Your task to perform on an android device: Show me recent news Image 0: 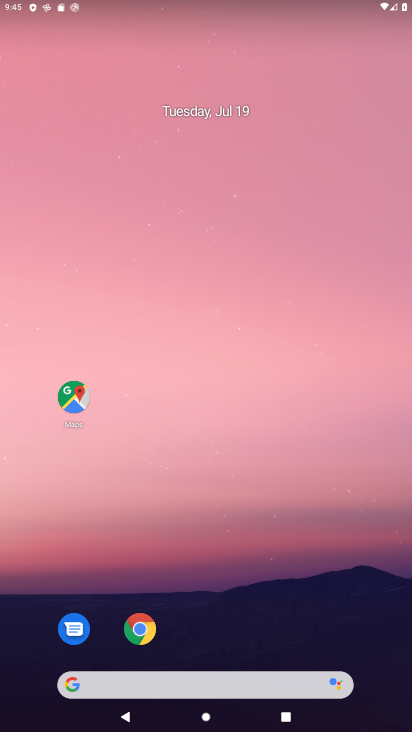
Step 0: press home button
Your task to perform on an android device: Show me recent news Image 1: 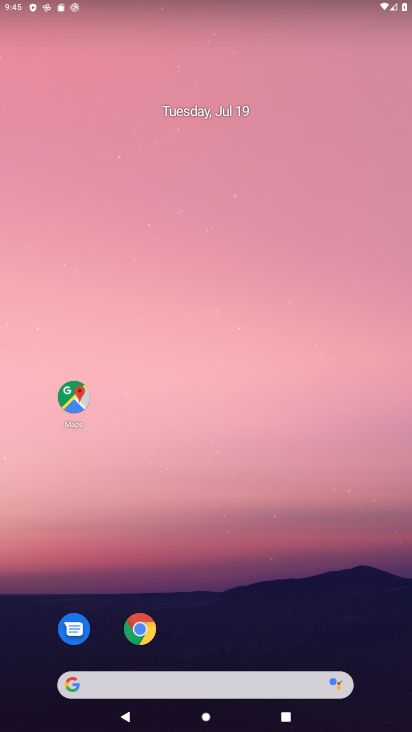
Step 1: click (65, 688)
Your task to perform on an android device: Show me recent news Image 2: 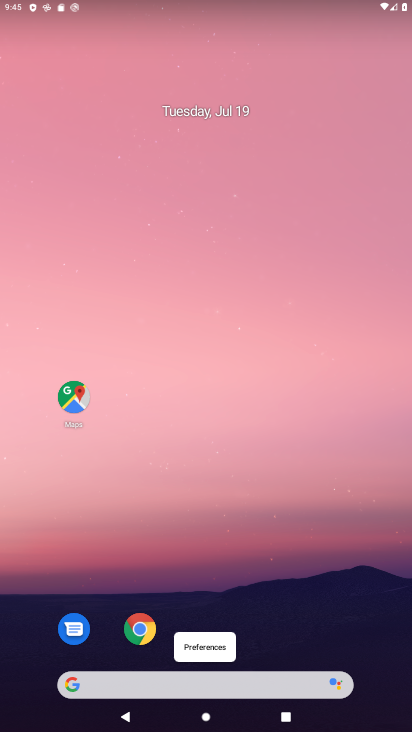
Step 2: click (71, 688)
Your task to perform on an android device: Show me recent news Image 3: 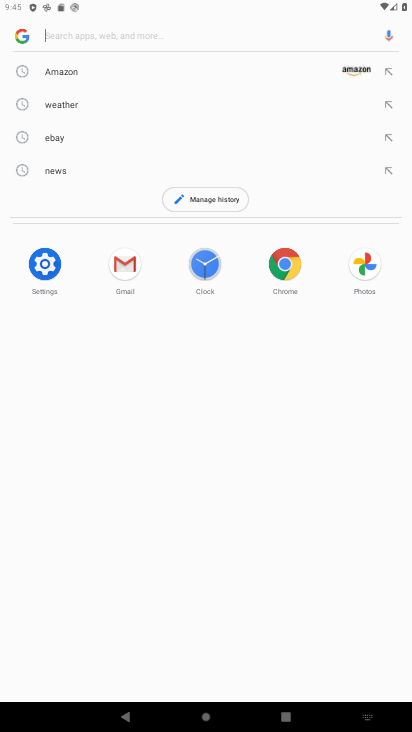
Step 3: type "recent news"
Your task to perform on an android device: Show me recent news Image 4: 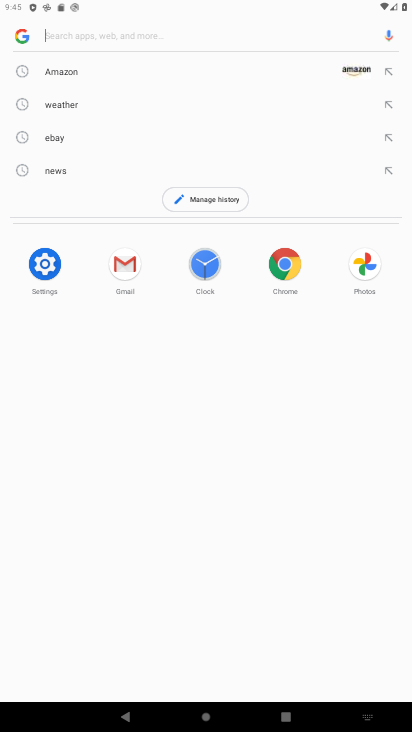
Step 4: click (112, 30)
Your task to perform on an android device: Show me recent news Image 5: 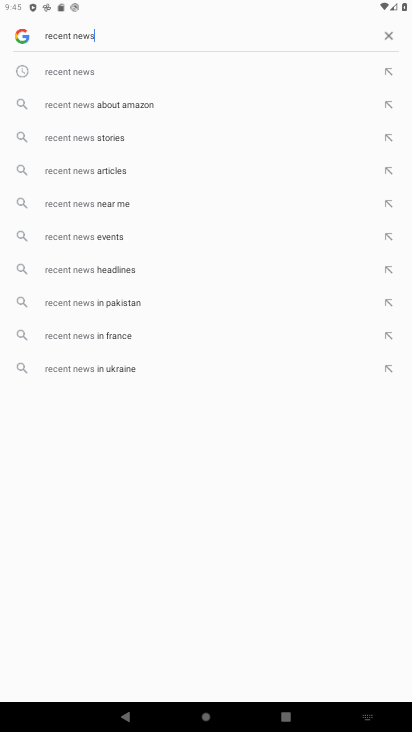
Step 5: press enter
Your task to perform on an android device: Show me recent news Image 6: 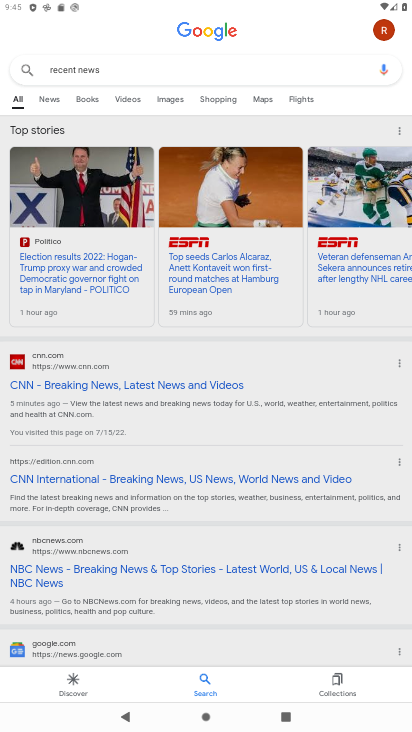
Step 6: task complete